Your task to perform on an android device: install app "Google Drive" Image 0: 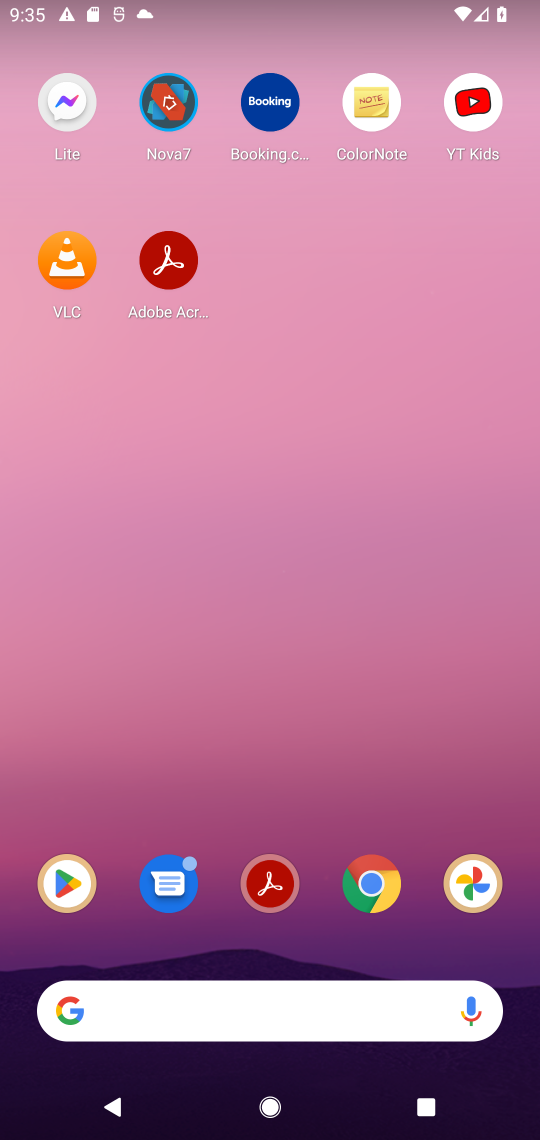
Step 0: click (72, 887)
Your task to perform on an android device: install app "Google Drive" Image 1: 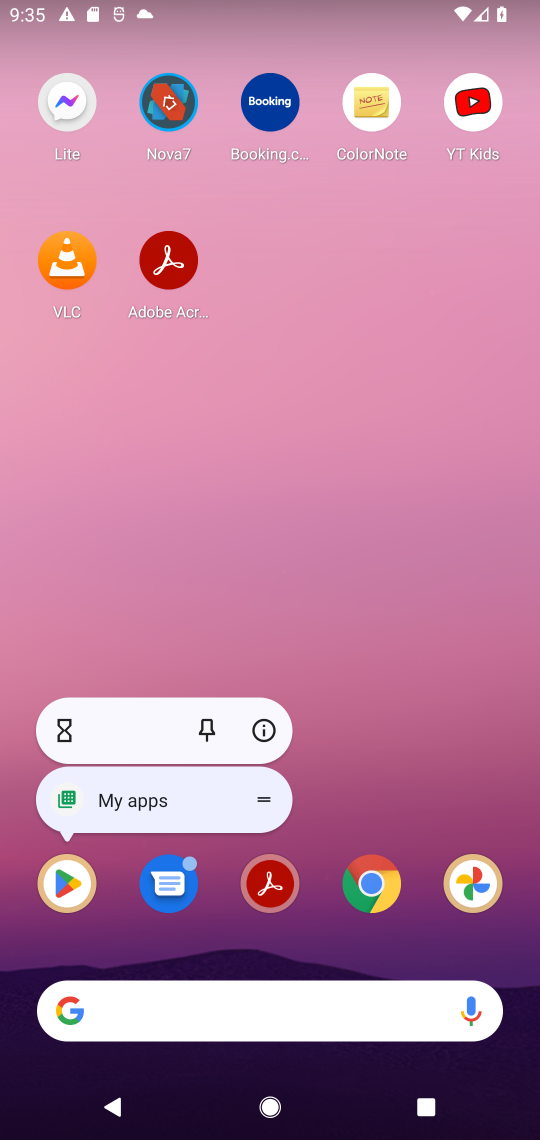
Step 1: click (72, 889)
Your task to perform on an android device: install app "Google Drive" Image 2: 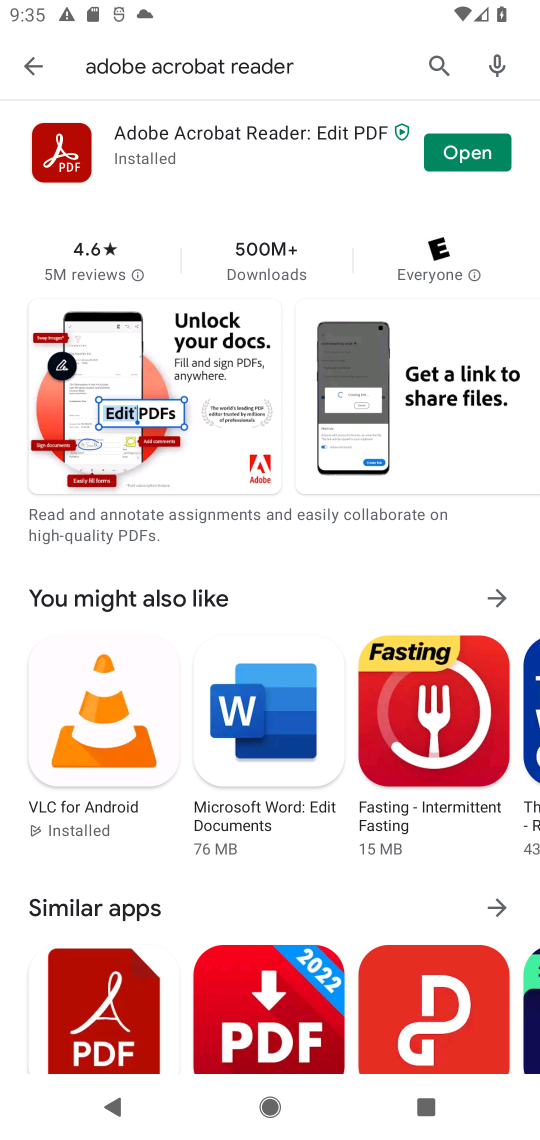
Step 2: click (254, 66)
Your task to perform on an android device: install app "Google Drive" Image 3: 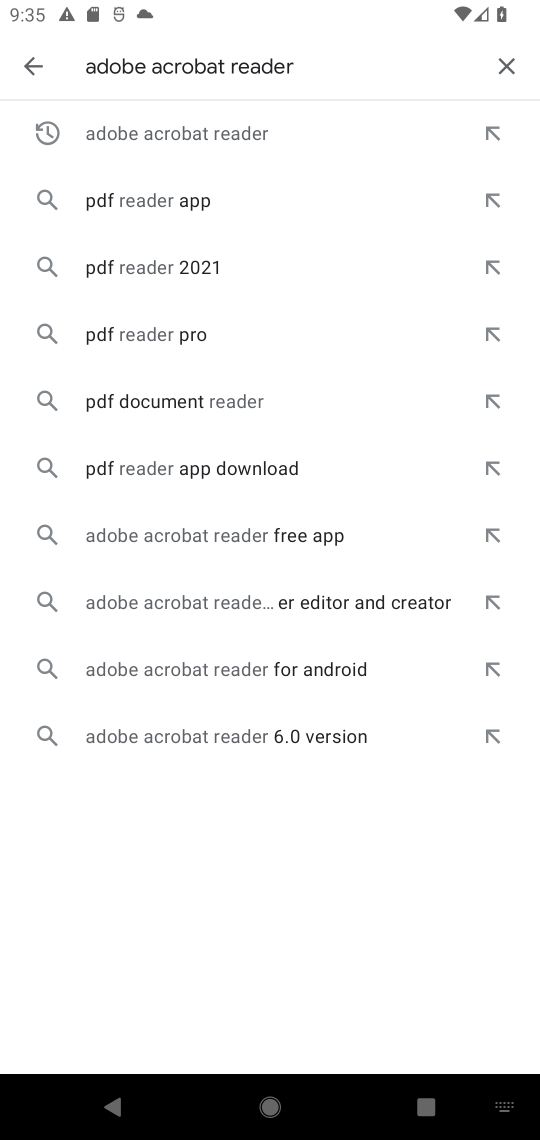
Step 3: click (494, 62)
Your task to perform on an android device: install app "Google Drive" Image 4: 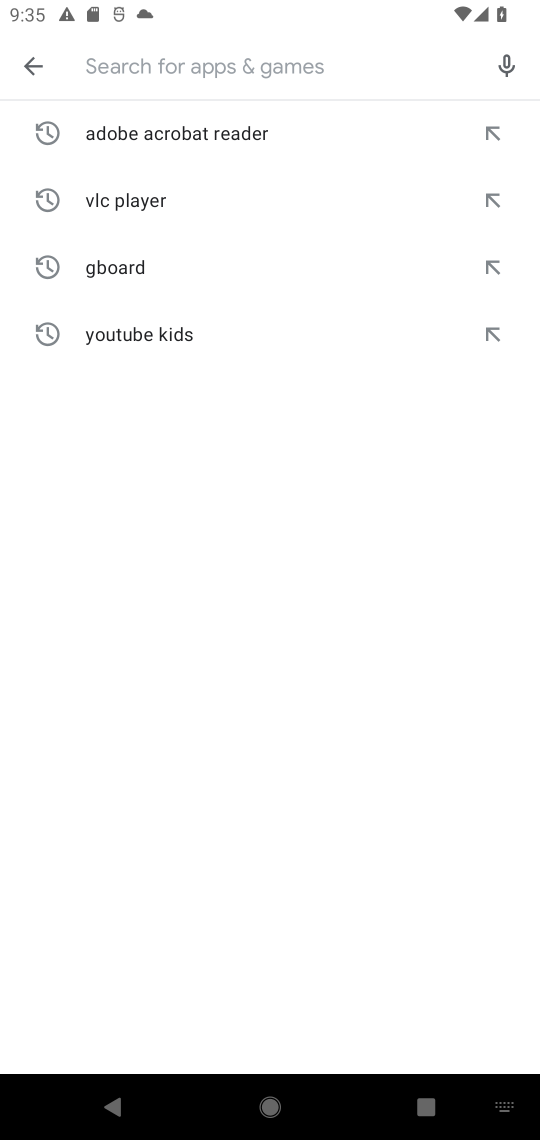
Step 4: type "Drive "
Your task to perform on an android device: install app "Google Drive" Image 5: 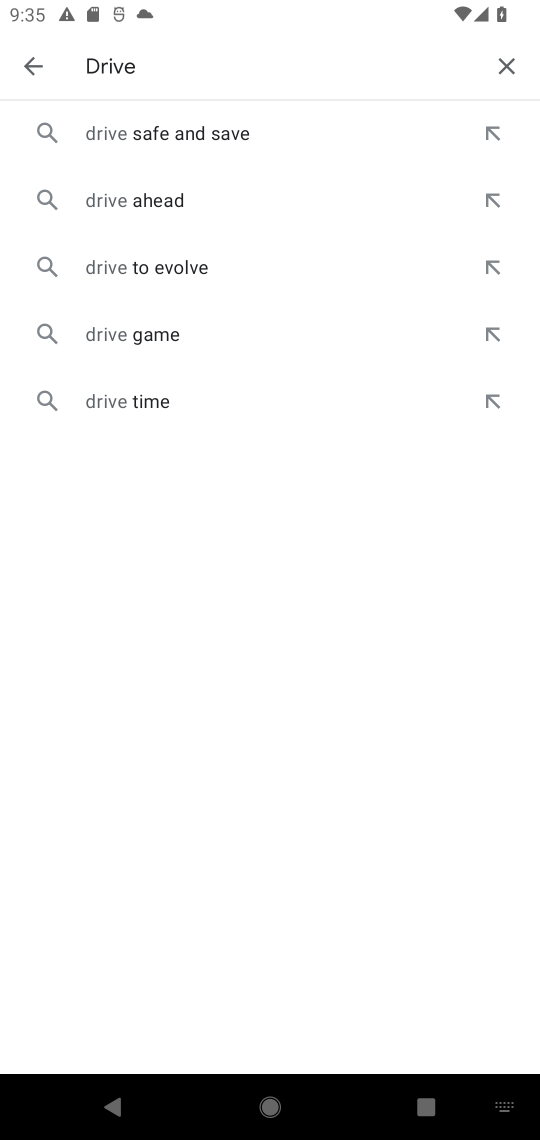
Step 5: type "google"
Your task to perform on an android device: install app "Google Drive" Image 6: 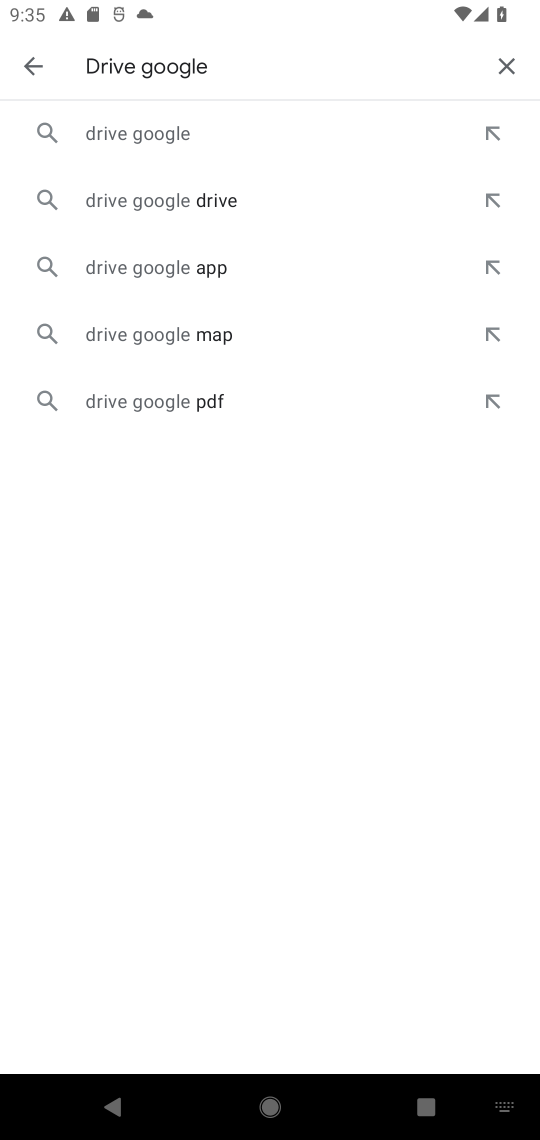
Step 6: click (164, 138)
Your task to perform on an android device: install app "Google Drive" Image 7: 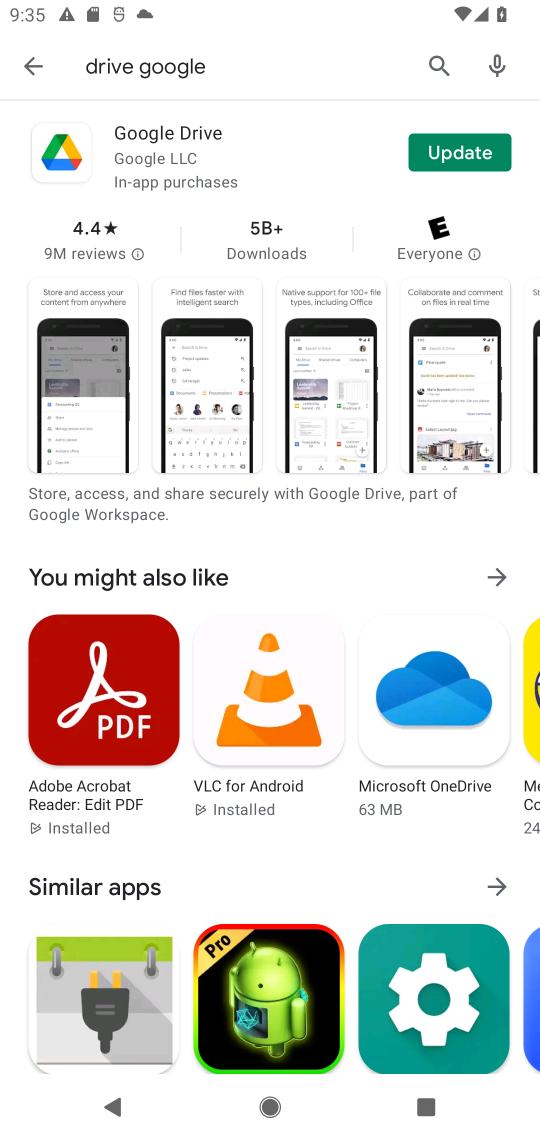
Step 7: click (463, 148)
Your task to perform on an android device: install app "Google Drive" Image 8: 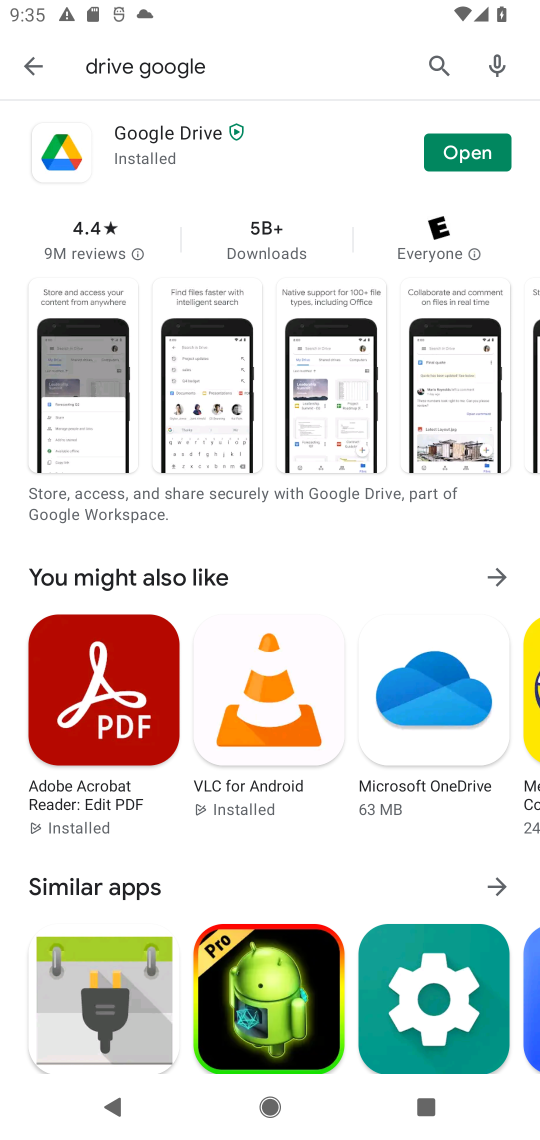
Step 8: click (476, 140)
Your task to perform on an android device: install app "Google Drive" Image 9: 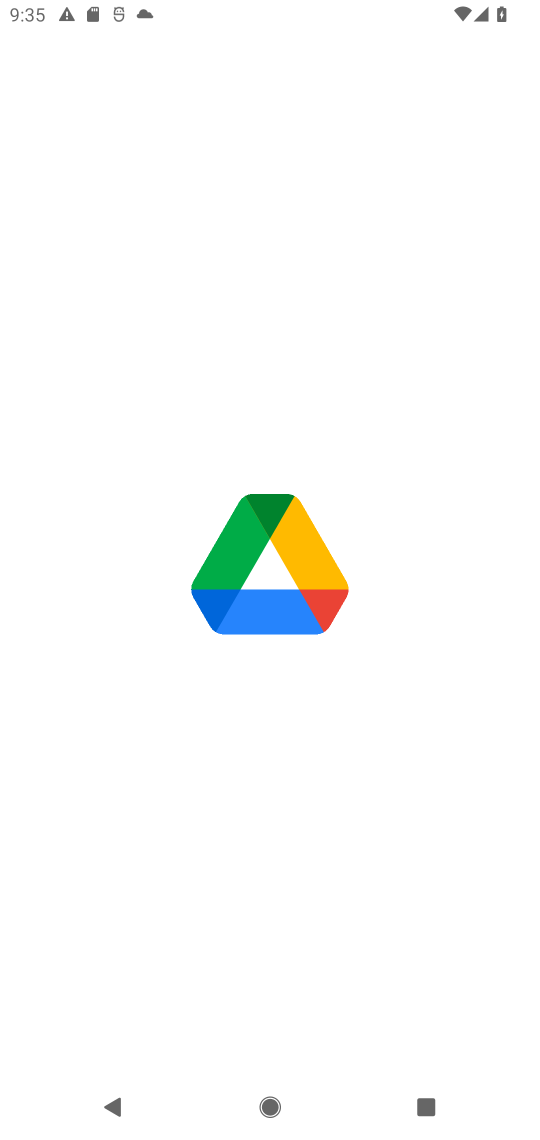
Step 9: task complete